Your task to perform on an android device: turn on priority inbox in the gmail app Image 0: 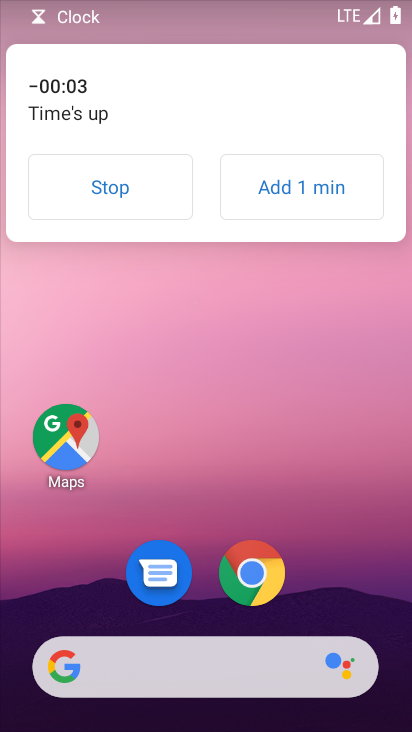
Step 0: drag from (214, 609) to (131, 5)
Your task to perform on an android device: turn on priority inbox in the gmail app Image 1: 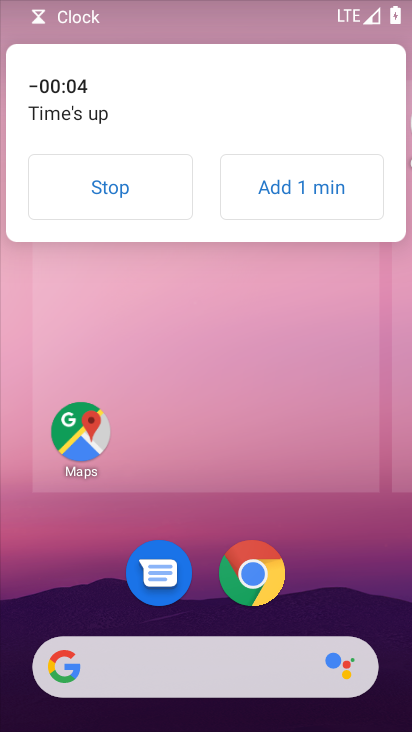
Step 1: click (125, 180)
Your task to perform on an android device: turn on priority inbox in the gmail app Image 2: 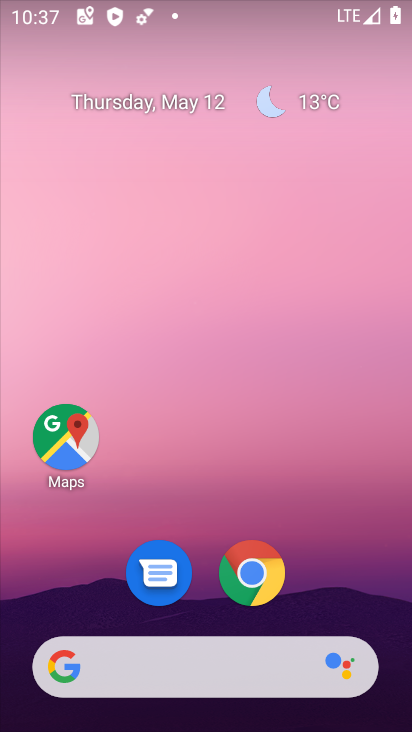
Step 2: drag from (214, 606) to (223, 10)
Your task to perform on an android device: turn on priority inbox in the gmail app Image 3: 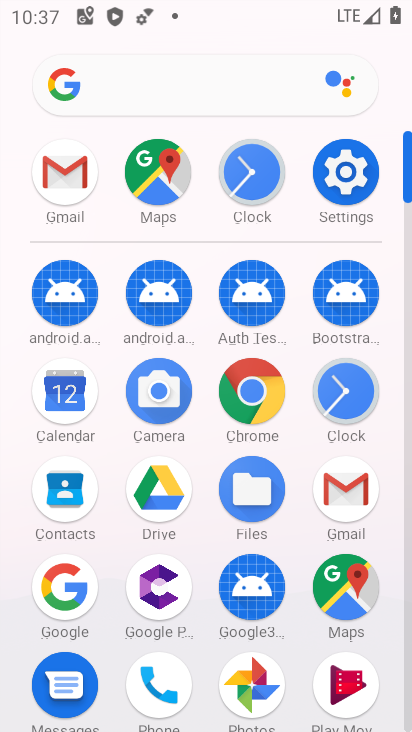
Step 3: click (351, 492)
Your task to perform on an android device: turn on priority inbox in the gmail app Image 4: 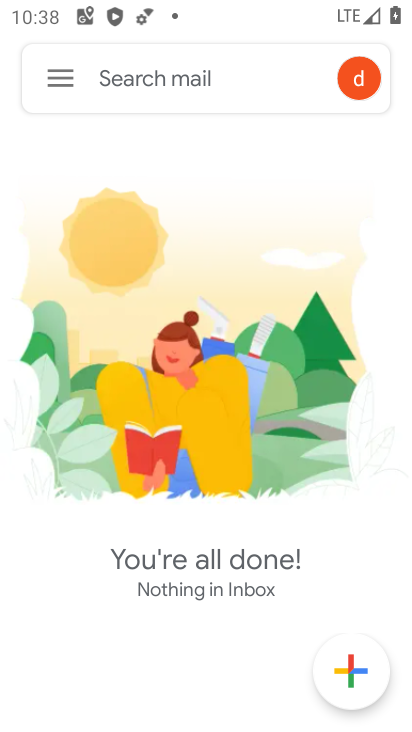
Step 4: click (61, 74)
Your task to perform on an android device: turn on priority inbox in the gmail app Image 5: 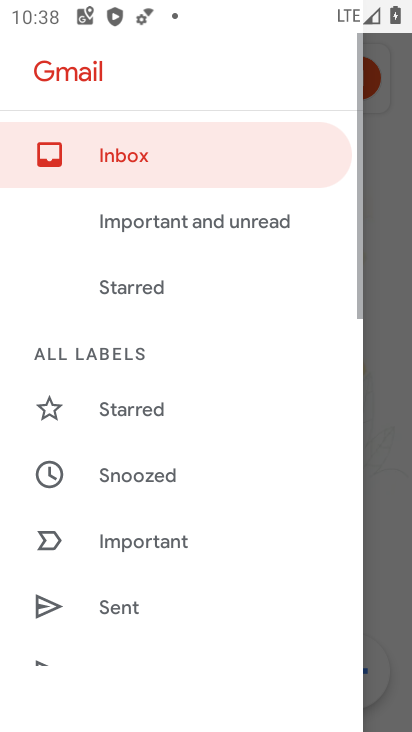
Step 5: drag from (112, 517) to (51, 8)
Your task to perform on an android device: turn on priority inbox in the gmail app Image 6: 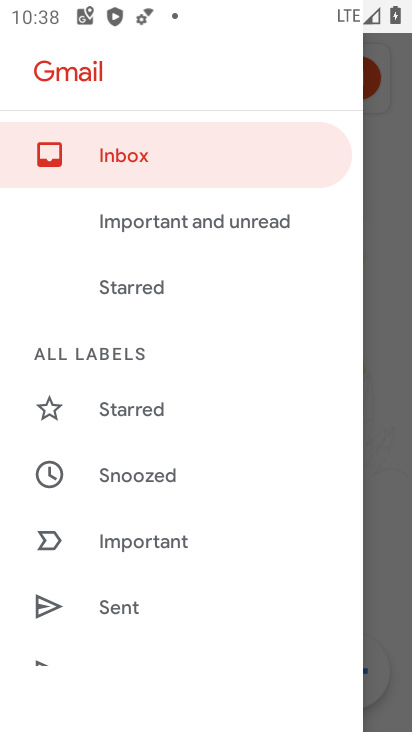
Step 6: drag from (90, 572) to (72, 0)
Your task to perform on an android device: turn on priority inbox in the gmail app Image 7: 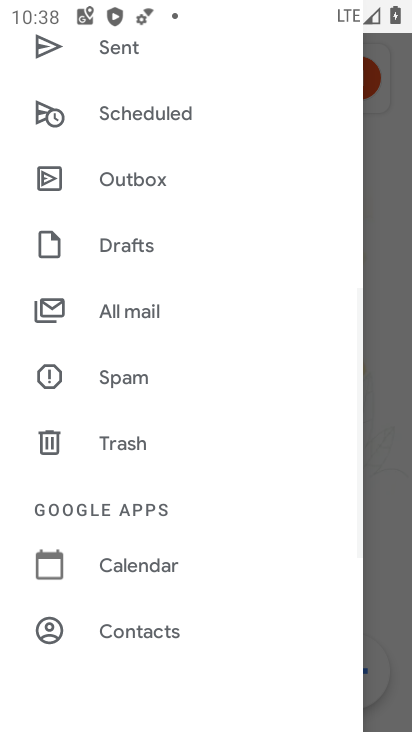
Step 7: drag from (138, 600) to (147, 0)
Your task to perform on an android device: turn on priority inbox in the gmail app Image 8: 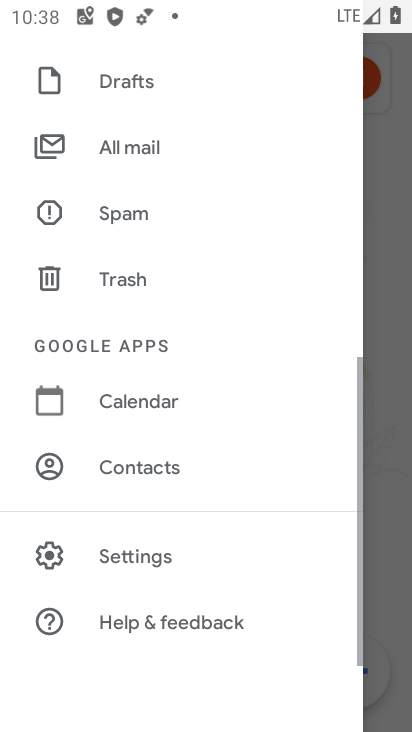
Step 8: click (149, 563)
Your task to perform on an android device: turn on priority inbox in the gmail app Image 9: 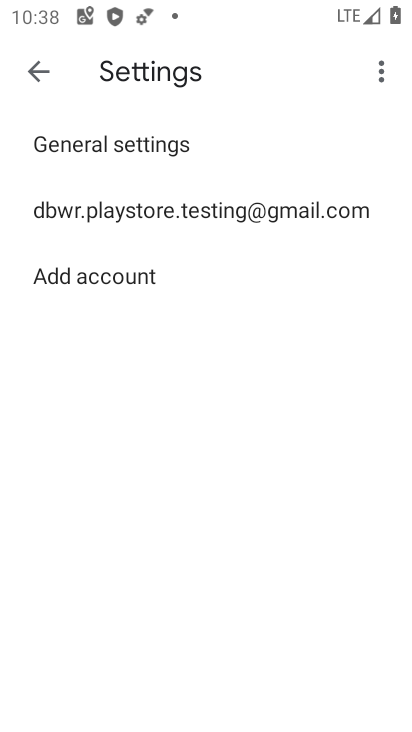
Step 9: click (124, 223)
Your task to perform on an android device: turn on priority inbox in the gmail app Image 10: 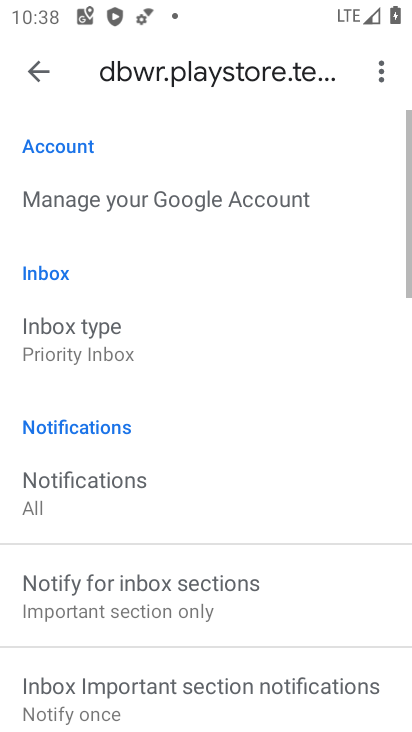
Step 10: click (77, 296)
Your task to perform on an android device: turn on priority inbox in the gmail app Image 11: 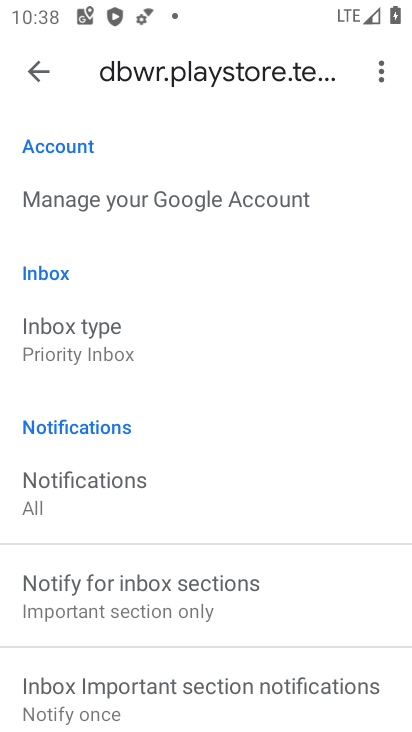
Step 11: task complete